Your task to perform on an android device: install app "Skype" Image 0: 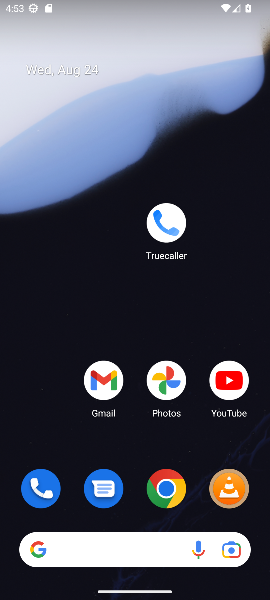
Step 0: drag from (136, 284) to (39, 305)
Your task to perform on an android device: install app "Skype" Image 1: 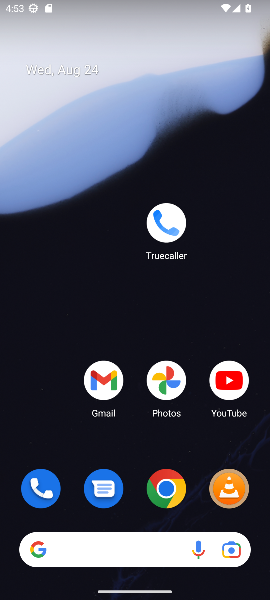
Step 1: click (216, 123)
Your task to perform on an android device: install app "Skype" Image 2: 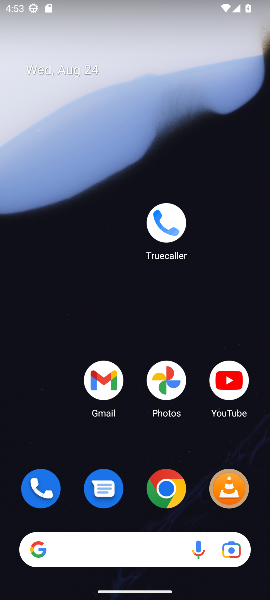
Step 2: drag from (130, 519) to (128, 9)
Your task to perform on an android device: install app "Skype" Image 3: 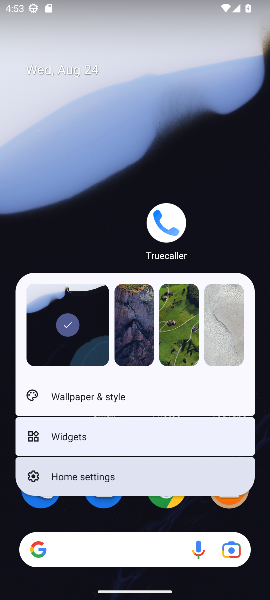
Step 3: click (120, 180)
Your task to perform on an android device: install app "Skype" Image 4: 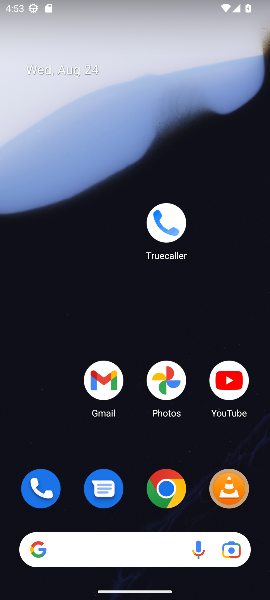
Step 4: drag from (138, 520) to (137, 89)
Your task to perform on an android device: install app "Skype" Image 5: 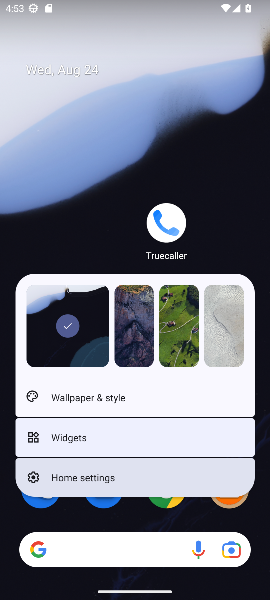
Step 5: click (119, 127)
Your task to perform on an android device: install app "Skype" Image 6: 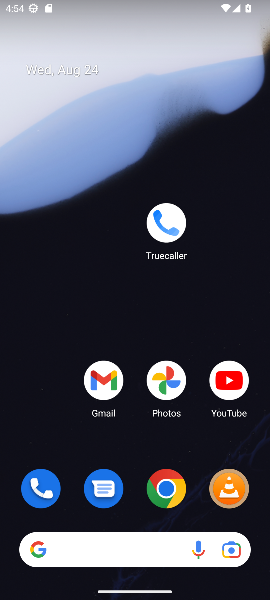
Step 6: drag from (131, 517) to (133, 152)
Your task to perform on an android device: install app "Skype" Image 7: 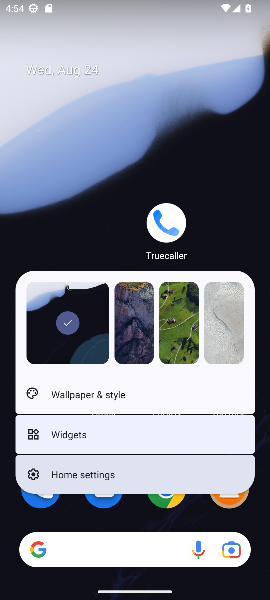
Step 7: click (133, 152)
Your task to perform on an android device: install app "Skype" Image 8: 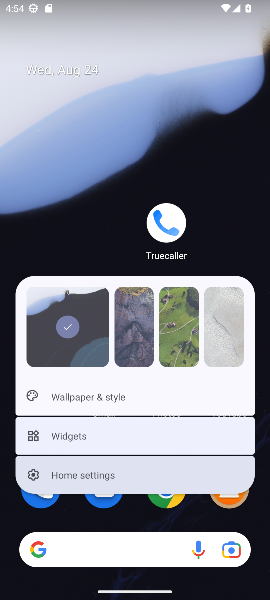
Step 8: click (133, 152)
Your task to perform on an android device: install app "Skype" Image 9: 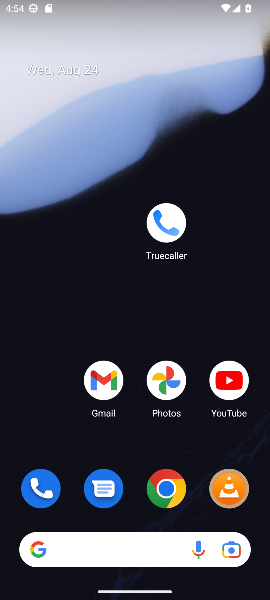
Step 9: drag from (142, 516) to (216, 10)
Your task to perform on an android device: install app "Skype" Image 10: 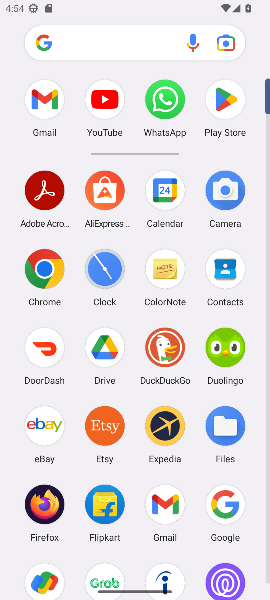
Step 10: click (229, 112)
Your task to perform on an android device: install app "Skype" Image 11: 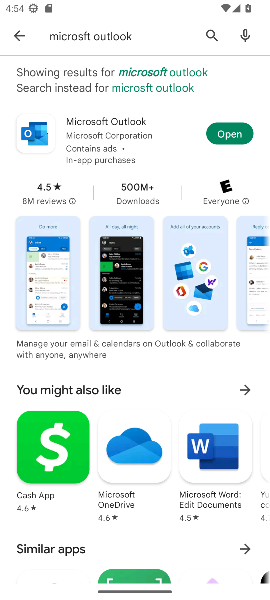
Step 11: click (207, 32)
Your task to perform on an android device: install app "Skype" Image 12: 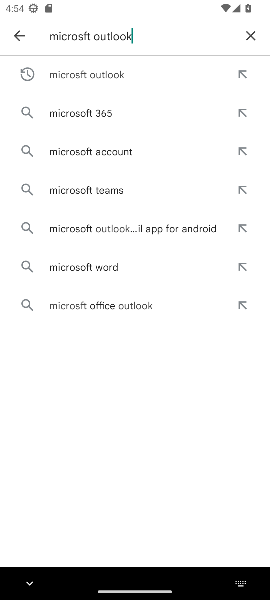
Step 12: click (241, 35)
Your task to perform on an android device: install app "Skype" Image 13: 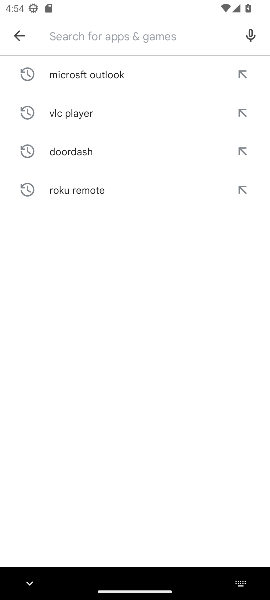
Step 13: click (247, 35)
Your task to perform on an android device: install app "Skype" Image 14: 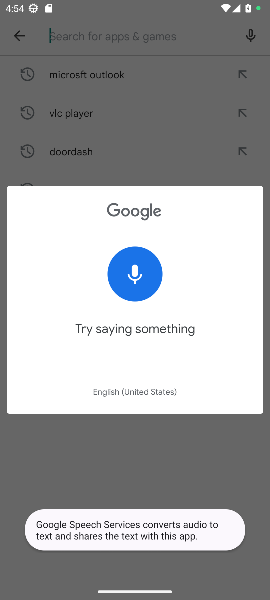
Step 14: click (100, 431)
Your task to perform on an android device: install app "Skype" Image 15: 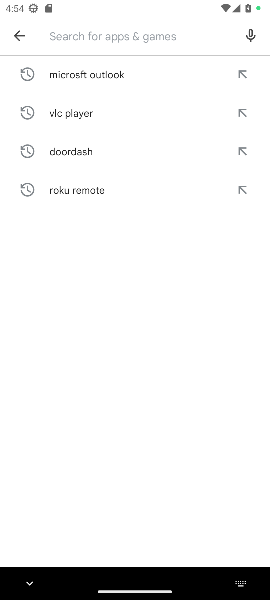
Step 15: click (173, 37)
Your task to perform on an android device: install app "Skype" Image 16: 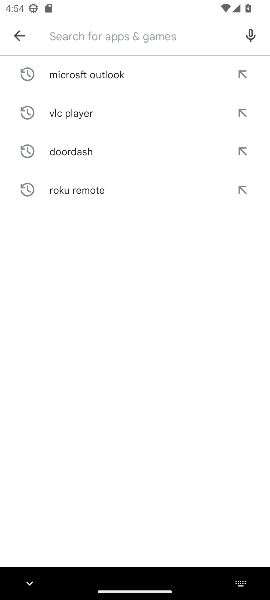
Step 16: type "skype"
Your task to perform on an android device: install app "Skype" Image 17: 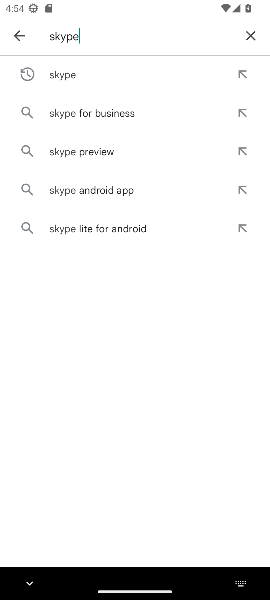
Step 17: click (132, 66)
Your task to perform on an android device: install app "Skype" Image 18: 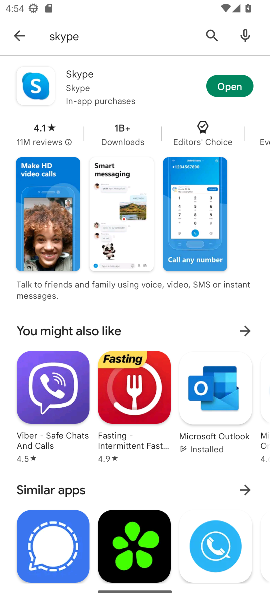
Step 18: click (221, 91)
Your task to perform on an android device: install app "Skype" Image 19: 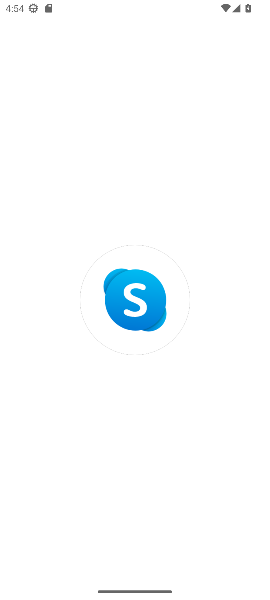
Step 19: task complete